Your task to perform on an android device: Go to Google maps Image 0: 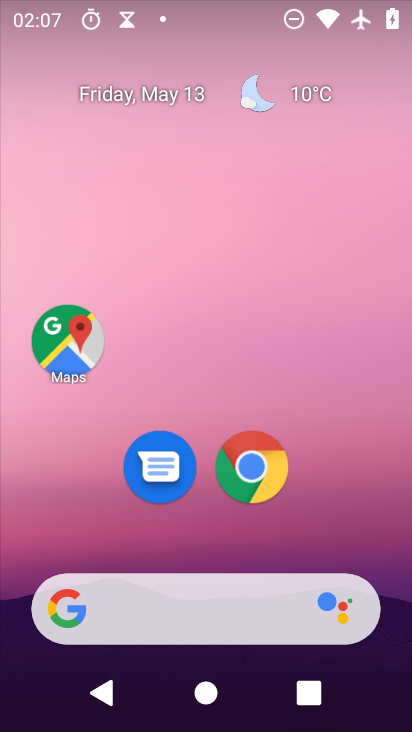
Step 0: click (82, 348)
Your task to perform on an android device: Go to Google maps Image 1: 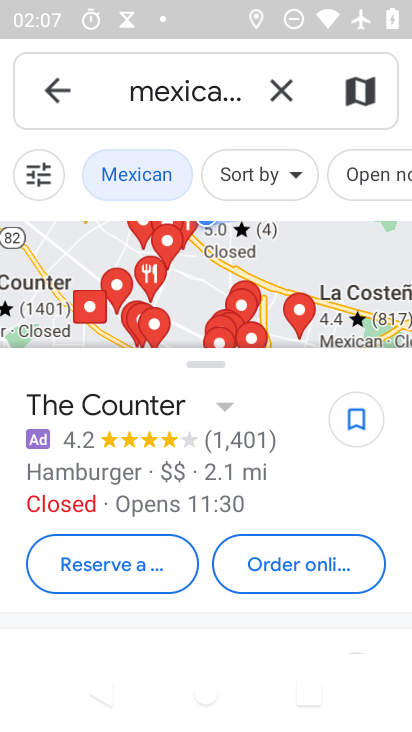
Step 1: task complete